Your task to perform on an android device: What's the weather today? Image 0: 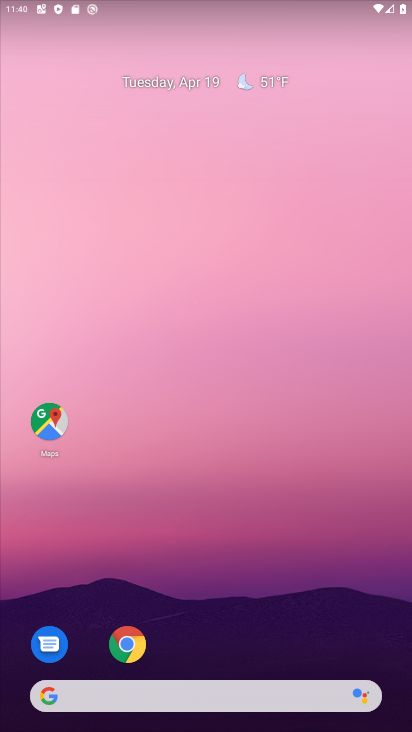
Step 0: drag from (206, 493) to (208, 101)
Your task to perform on an android device: What's the weather today? Image 1: 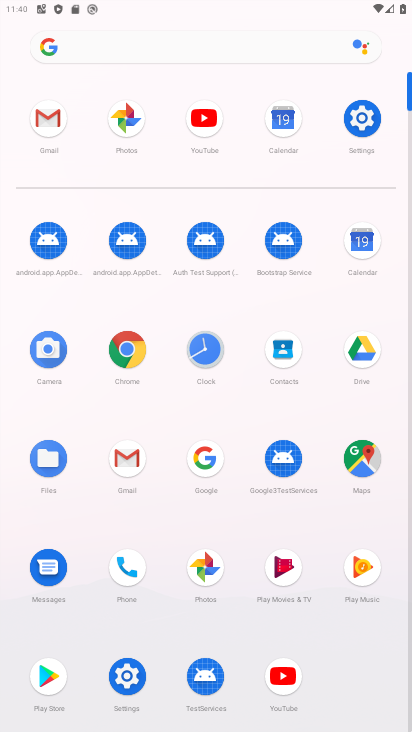
Step 1: click (200, 454)
Your task to perform on an android device: What's the weather today? Image 2: 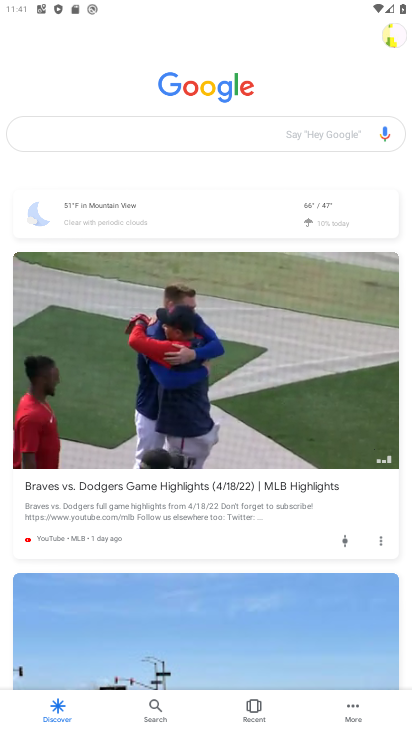
Step 2: click (308, 206)
Your task to perform on an android device: What's the weather today? Image 3: 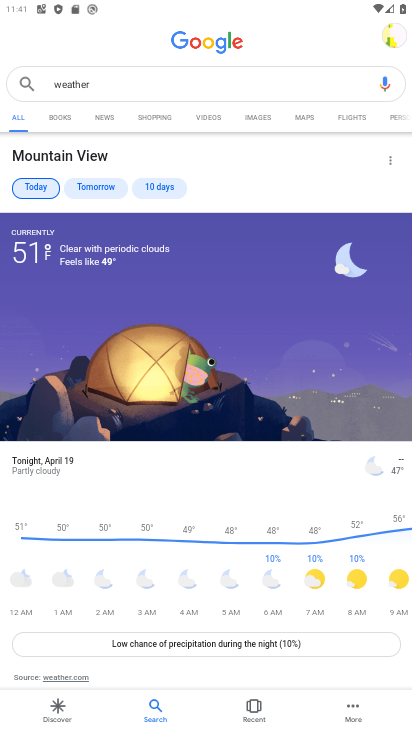
Step 3: task complete